Your task to perform on an android device: Go to Reddit.com Image 0: 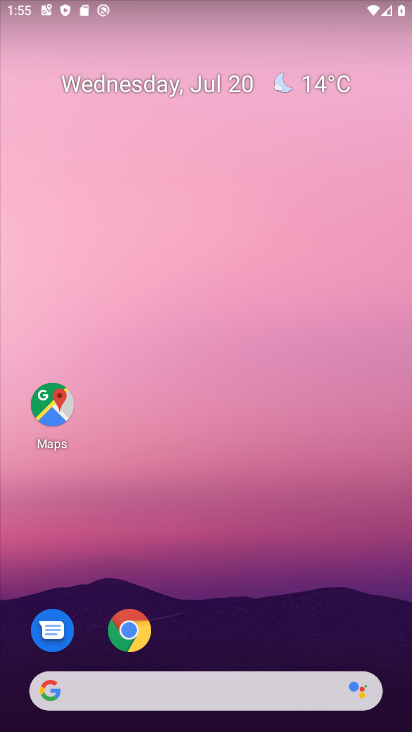
Step 0: drag from (275, 496) to (317, 189)
Your task to perform on an android device: Go to Reddit.com Image 1: 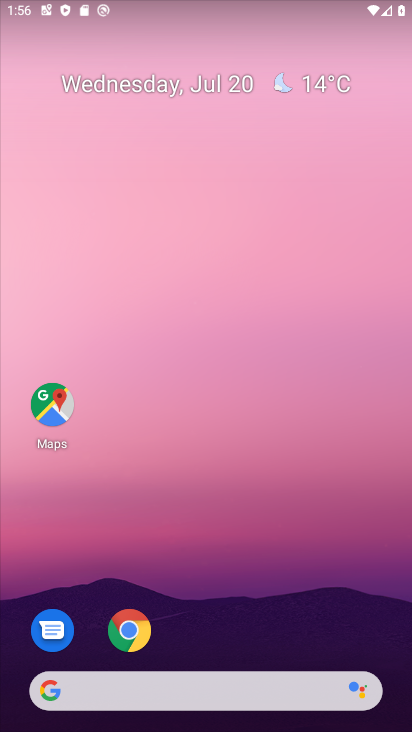
Step 1: drag from (262, 702) to (328, 116)
Your task to perform on an android device: Go to Reddit.com Image 2: 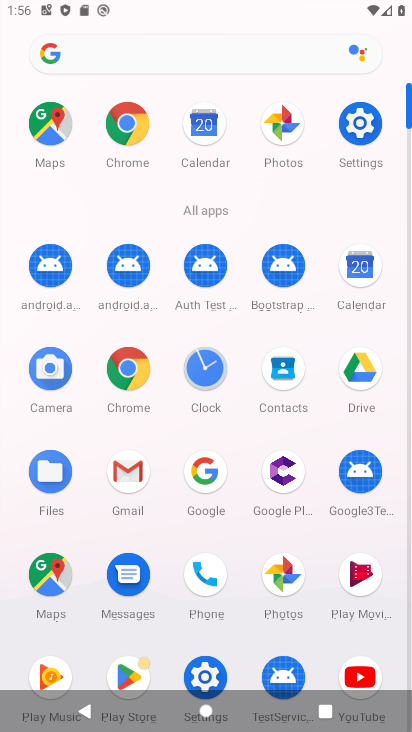
Step 2: click (132, 126)
Your task to perform on an android device: Go to Reddit.com Image 3: 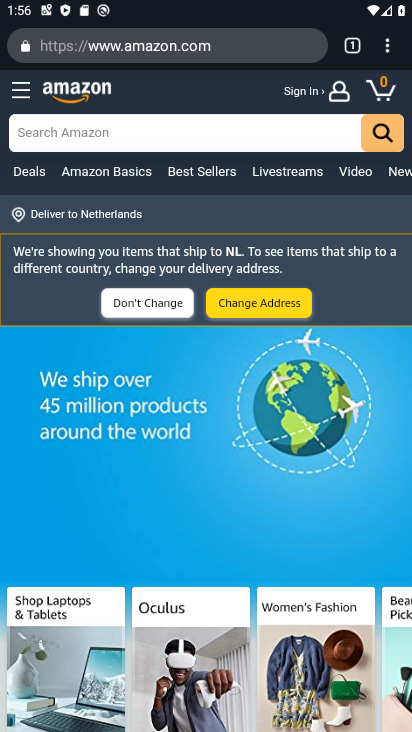
Step 3: click (171, 48)
Your task to perform on an android device: Go to Reddit.com Image 4: 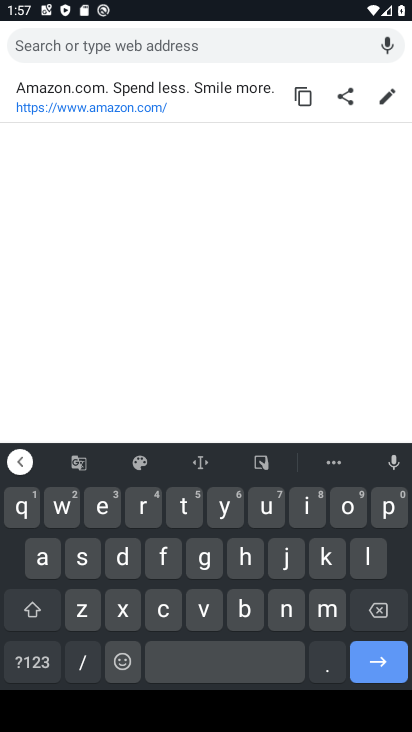
Step 4: click (141, 511)
Your task to perform on an android device: Go to Reddit.com Image 5: 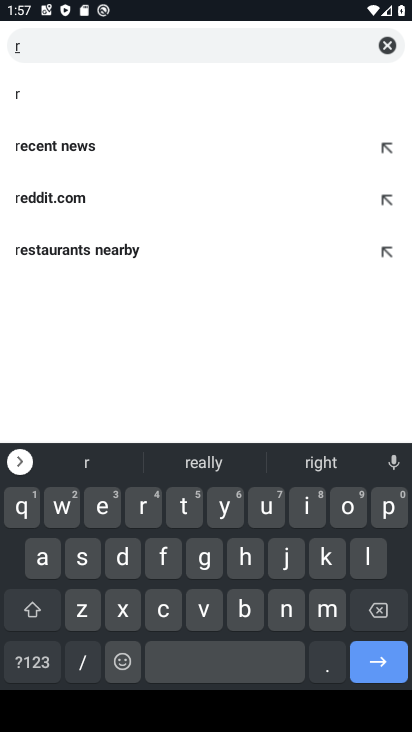
Step 5: click (76, 208)
Your task to perform on an android device: Go to Reddit.com Image 6: 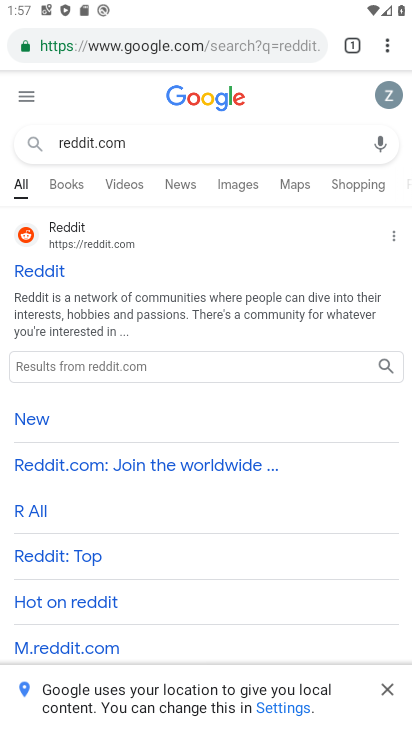
Step 6: click (51, 267)
Your task to perform on an android device: Go to Reddit.com Image 7: 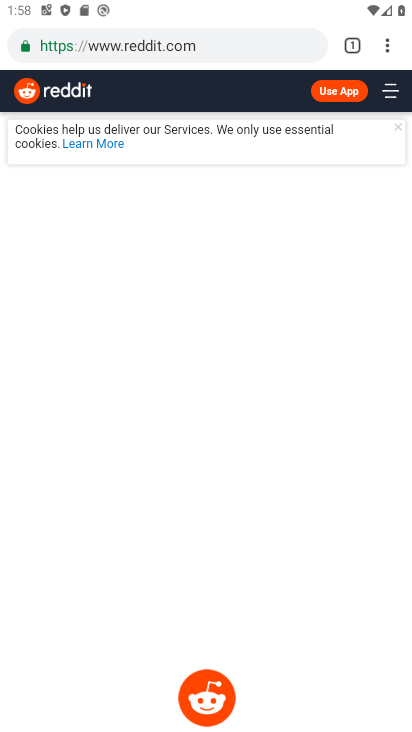
Step 7: task complete